Your task to perform on an android device: turn on sleep mode Image 0: 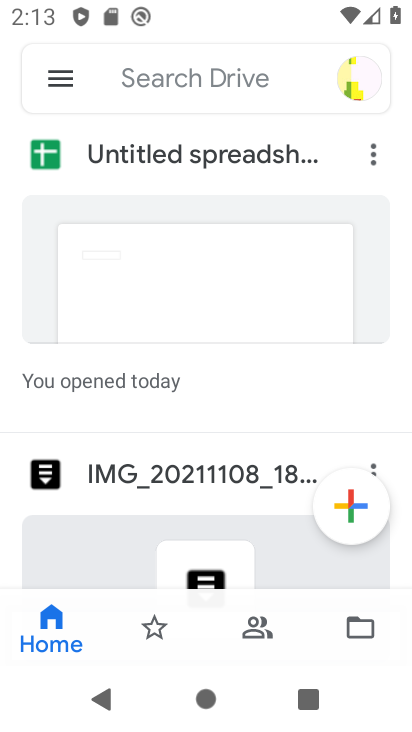
Step 0: press back button
Your task to perform on an android device: turn on sleep mode Image 1: 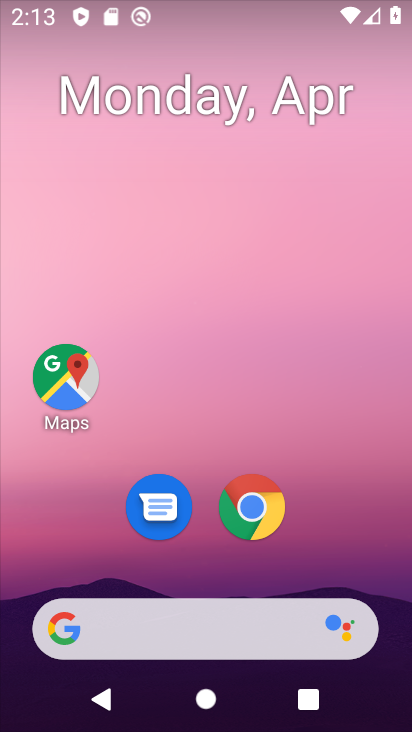
Step 1: drag from (397, 627) to (329, 35)
Your task to perform on an android device: turn on sleep mode Image 2: 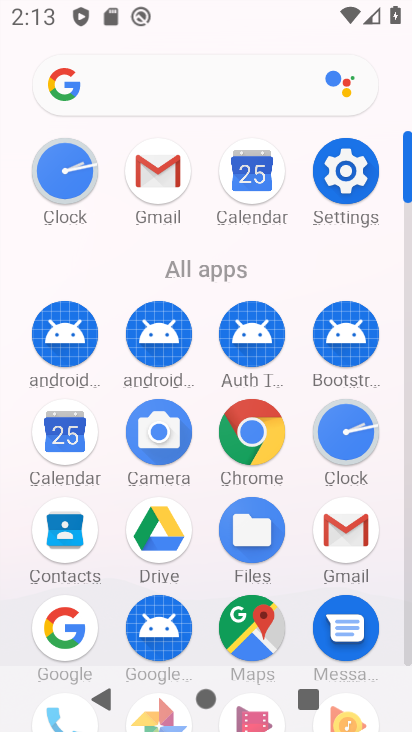
Step 2: click (407, 640)
Your task to perform on an android device: turn on sleep mode Image 3: 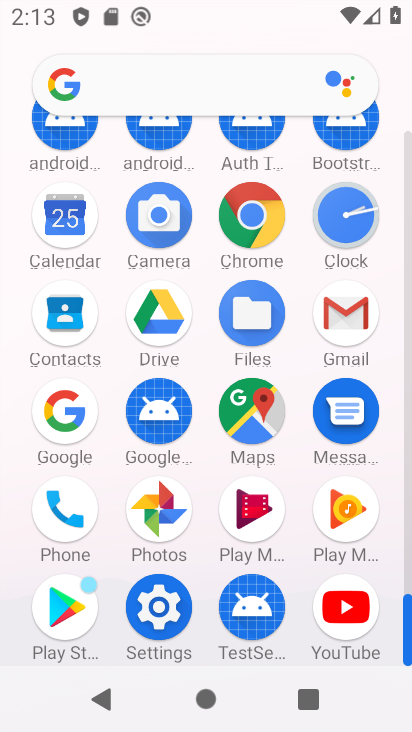
Step 3: click (155, 607)
Your task to perform on an android device: turn on sleep mode Image 4: 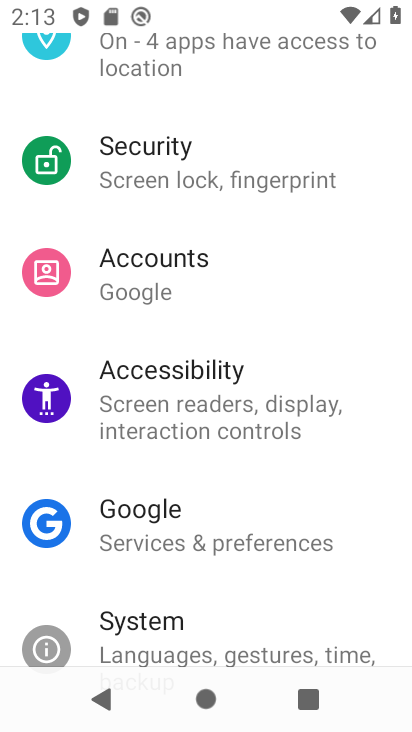
Step 4: drag from (367, 141) to (331, 574)
Your task to perform on an android device: turn on sleep mode Image 5: 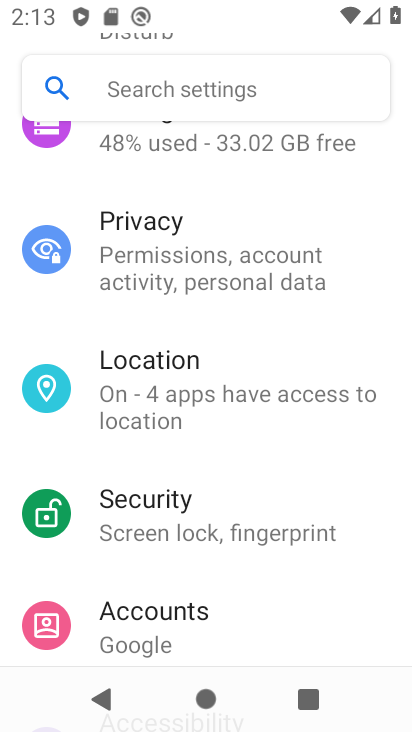
Step 5: drag from (349, 221) to (304, 572)
Your task to perform on an android device: turn on sleep mode Image 6: 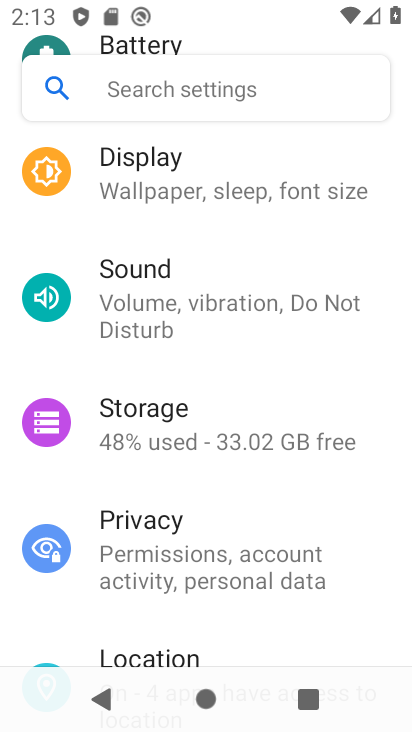
Step 6: click (137, 159)
Your task to perform on an android device: turn on sleep mode Image 7: 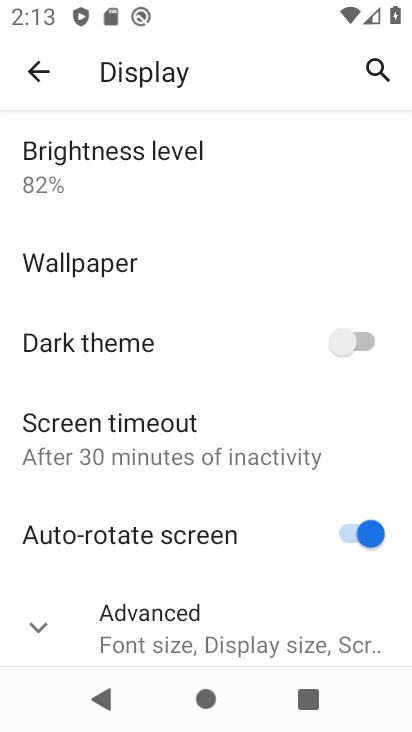
Step 7: click (33, 630)
Your task to perform on an android device: turn on sleep mode Image 8: 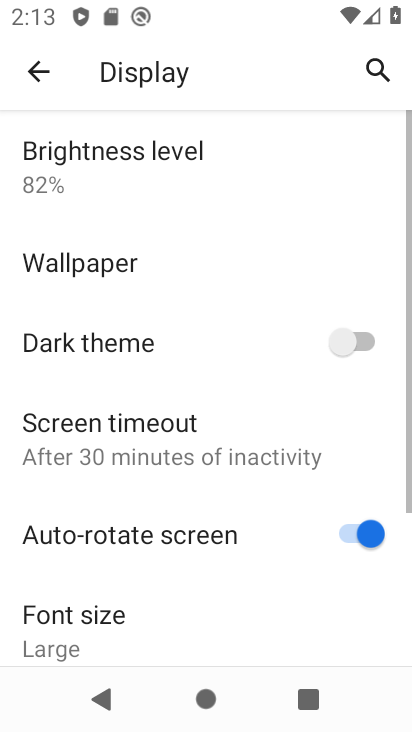
Step 8: task complete